Your task to perform on an android device: check battery use Image 0: 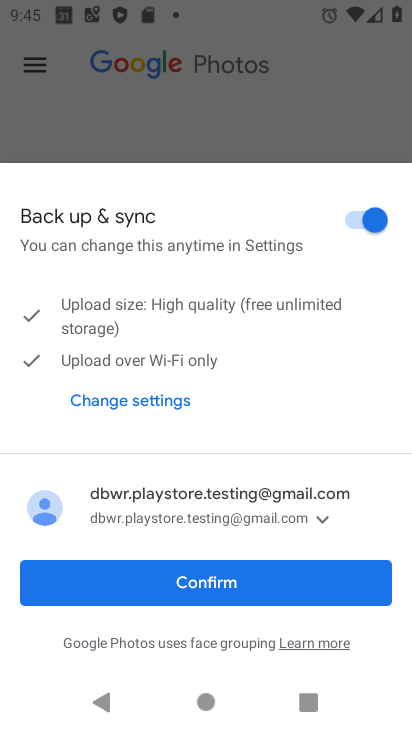
Step 0: press home button
Your task to perform on an android device: check battery use Image 1: 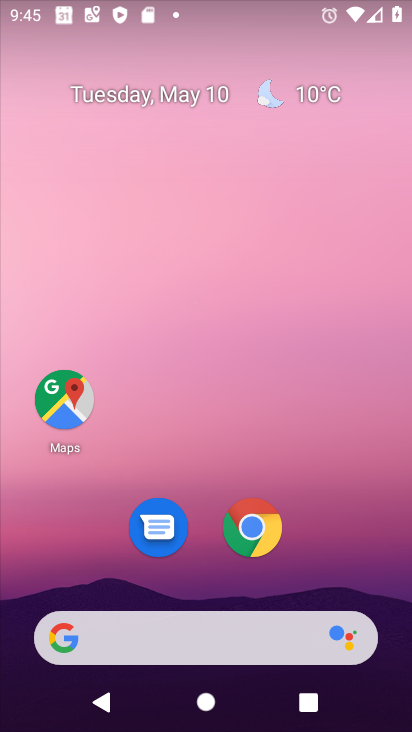
Step 1: drag from (183, 727) to (184, 77)
Your task to perform on an android device: check battery use Image 2: 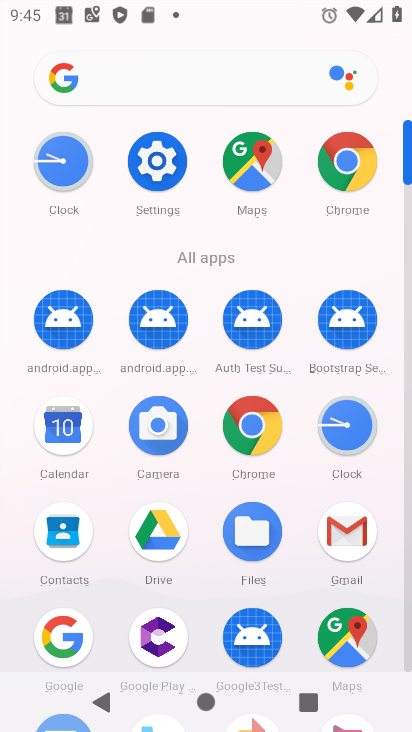
Step 2: click (161, 160)
Your task to perform on an android device: check battery use Image 3: 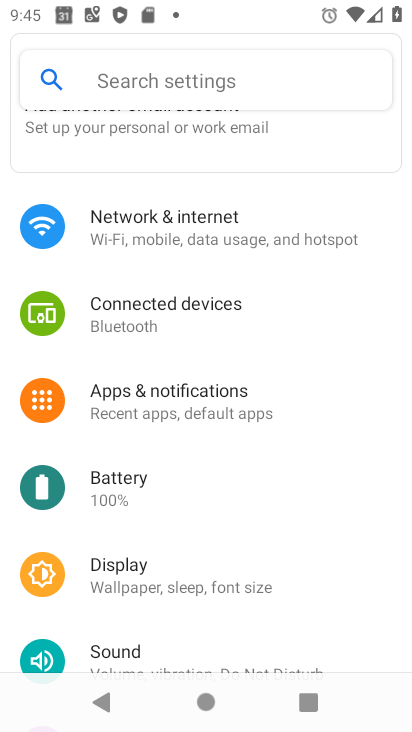
Step 3: click (108, 480)
Your task to perform on an android device: check battery use Image 4: 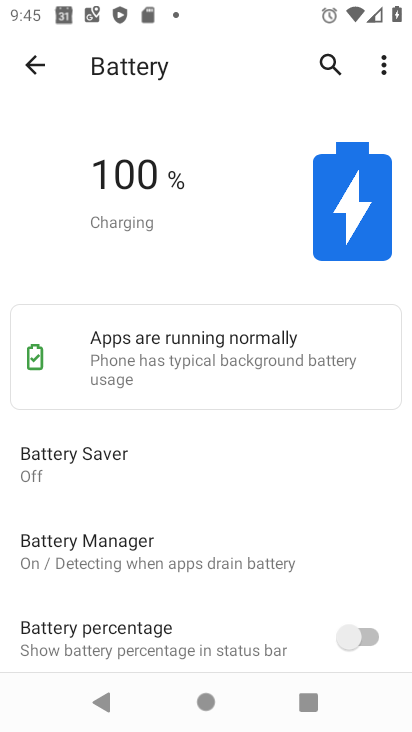
Step 4: click (380, 69)
Your task to perform on an android device: check battery use Image 5: 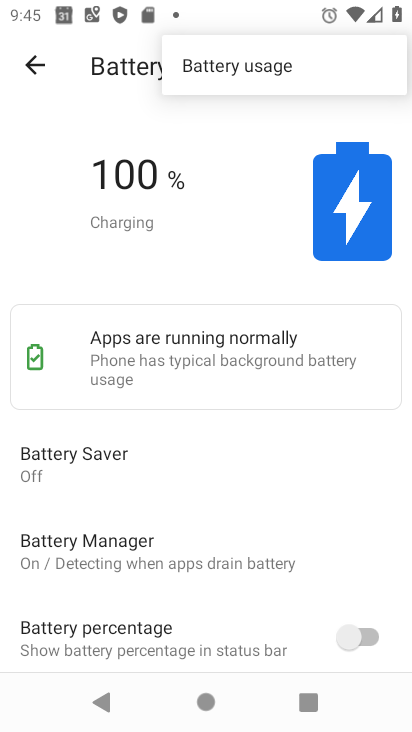
Step 5: click (247, 67)
Your task to perform on an android device: check battery use Image 6: 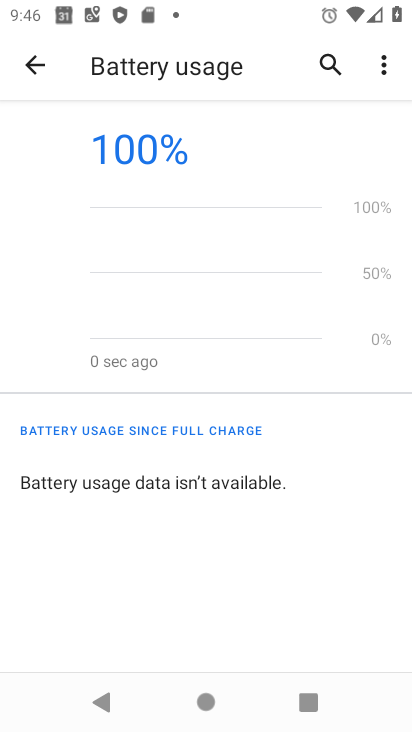
Step 6: task complete